Your task to perform on an android device: change text size in settings app Image 0: 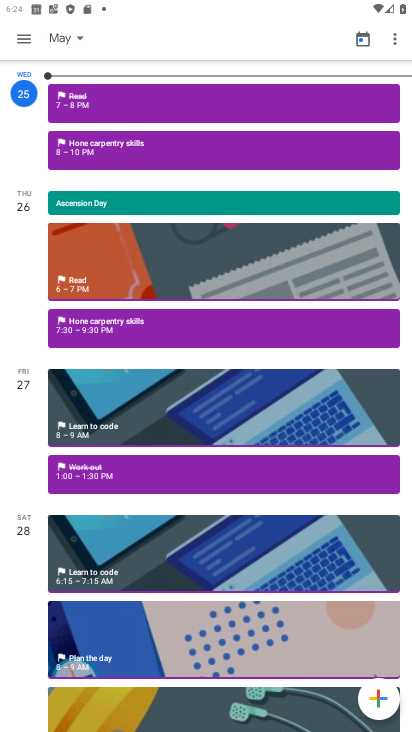
Step 0: press home button
Your task to perform on an android device: change text size in settings app Image 1: 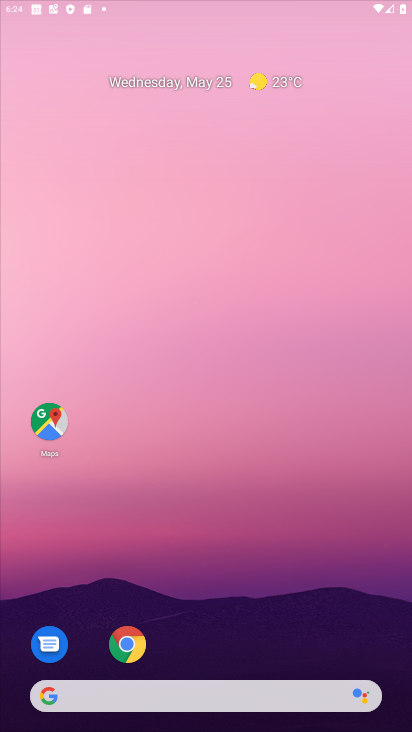
Step 1: drag from (377, 689) to (304, 14)
Your task to perform on an android device: change text size in settings app Image 2: 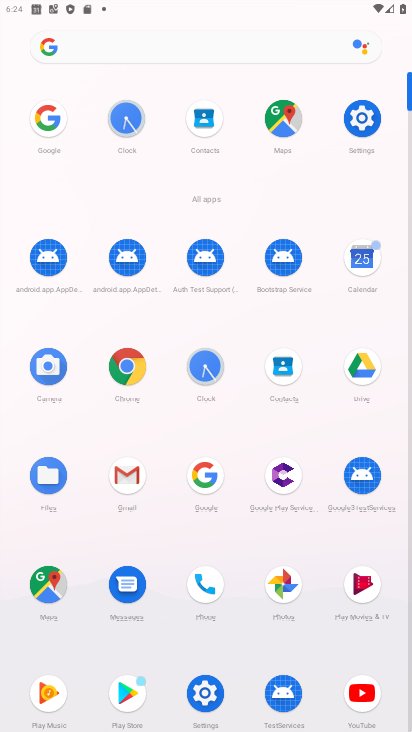
Step 2: click (365, 116)
Your task to perform on an android device: change text size in settings app Image 3: 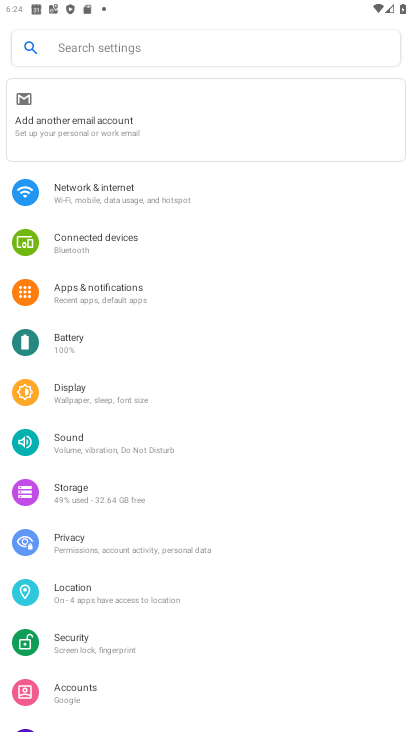
Step 3: click (69, 408)
Your task to perform on an android device: change text size in settings app Image 4: 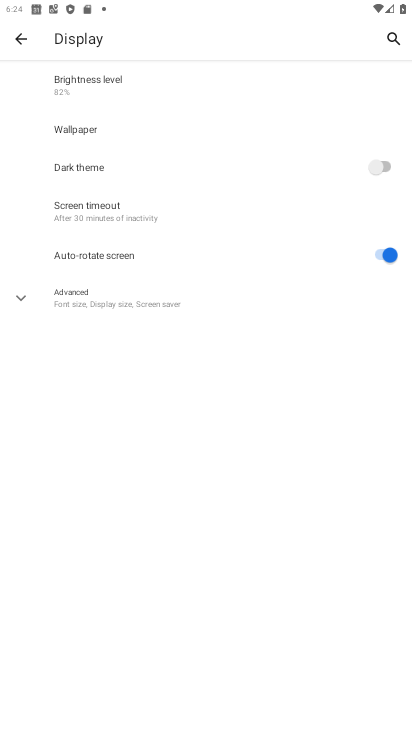
Step 4: click (94, 298)
Your task to perform on an android device: change text size in settings app Image 5: 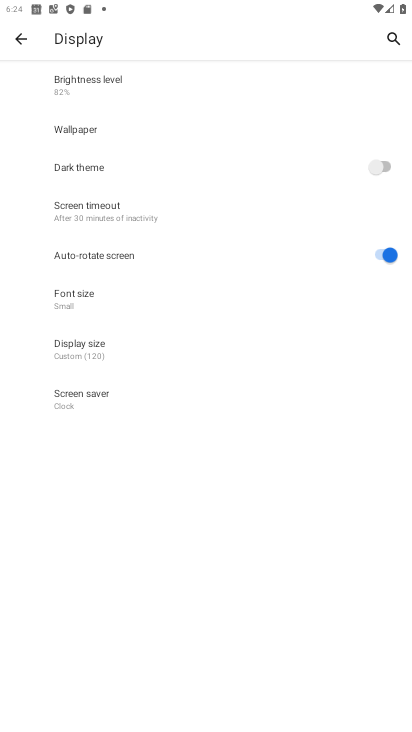
Step 5: click (94, 298)
Your task to perform on an android device: change text size in settings app Image 6: 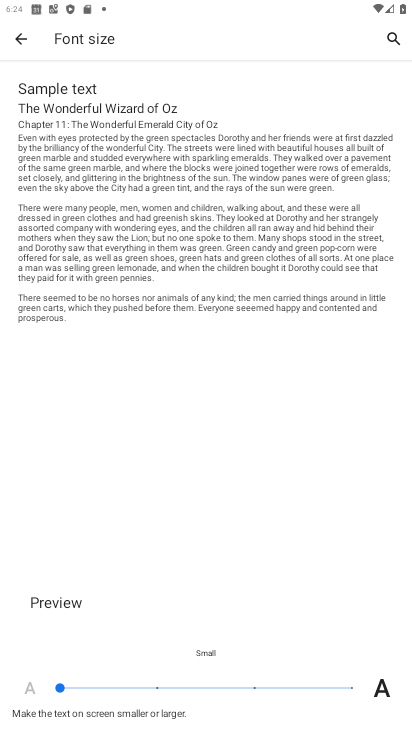
Step 6: click (154, 690)
Your task to perform on an android device: change text size in settings app Image 7: 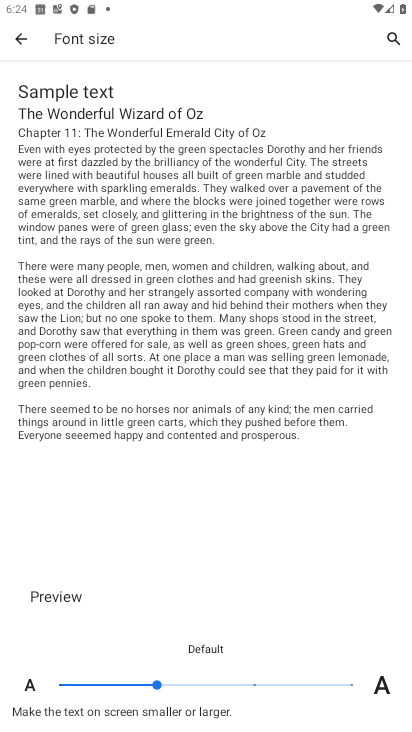
Step 7: task complete